Your task to perform on an android device: Show me productivity apps on the Play Store Image 0: 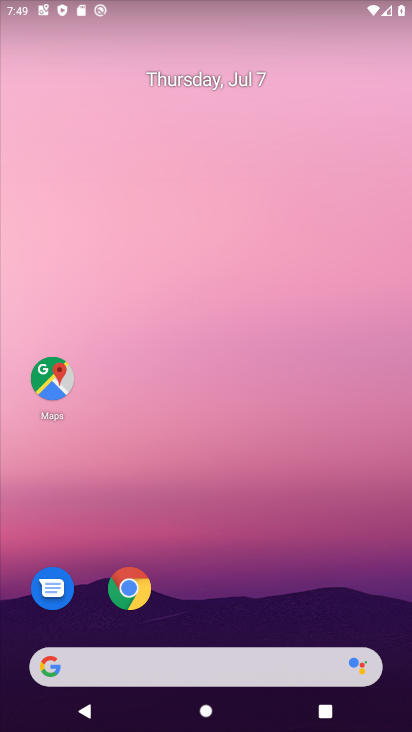
Step 0: drag from (182, 619) to (253, 178)
Your task to perform on an android device: Show me productivity apps on the Play Store Image 1: 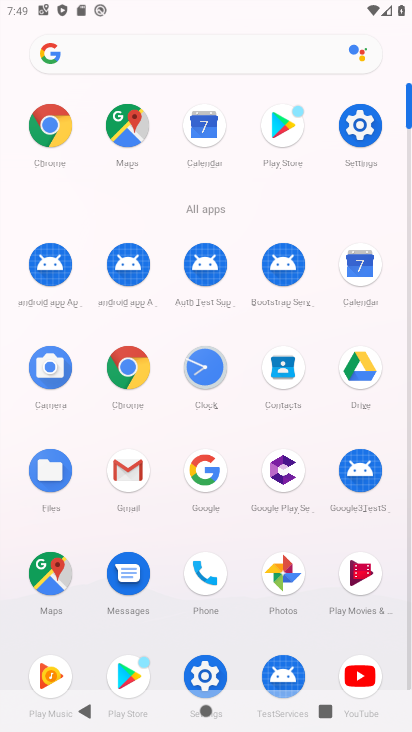
Step 1: click (129, 678)
Your task to perform on an android device: Show me productivity apps on the Play Store Image 2: 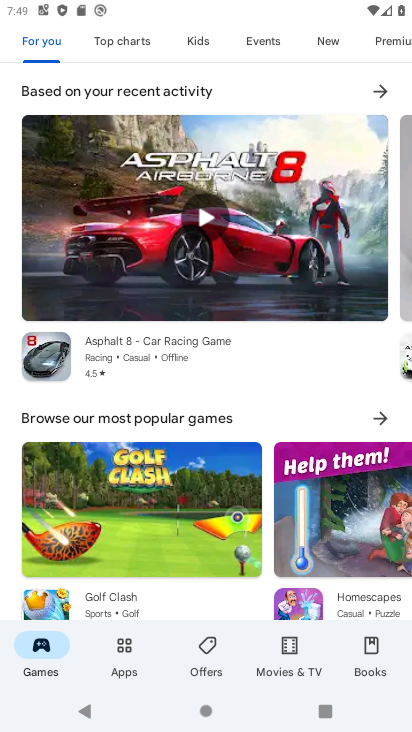
Step 2: task complete